Your task to perform on an android device: turn off location Image 0: 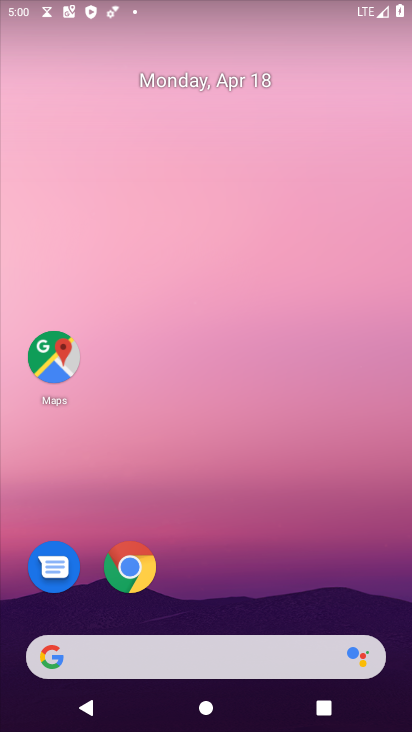
Step 0: drag from (238, 590) to (300, 105)
Your task to perform on an android device: turn off location Image 1: 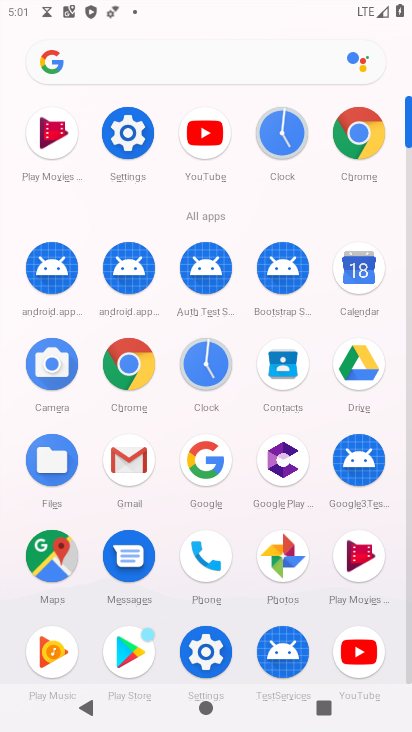
Step 1: click (202, 639)
Your task to perform on an android device: turn off location Image 2: 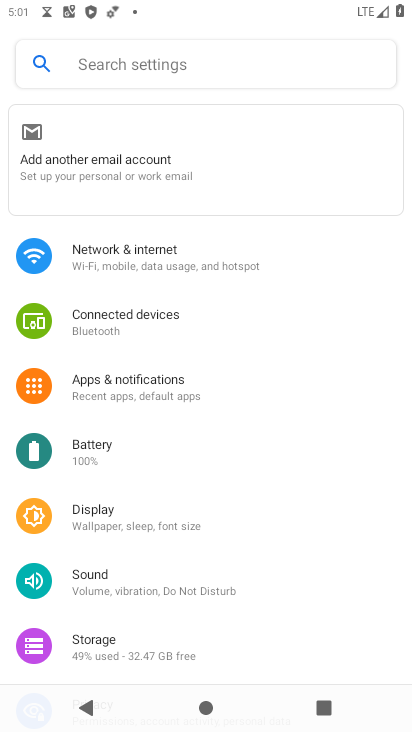
Step 2: drag from (184, 632) to (188, 506)
Your task to perform on an android device: turn off location Image 3: 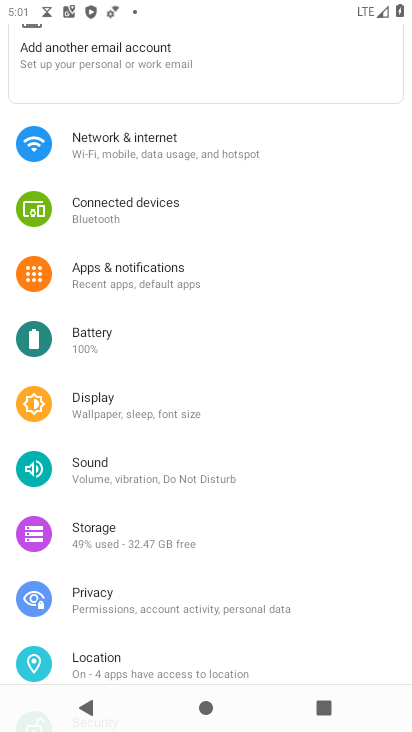
Step 3: click (153, 644)
Your task to perform on an android device: turn off location Image 4: 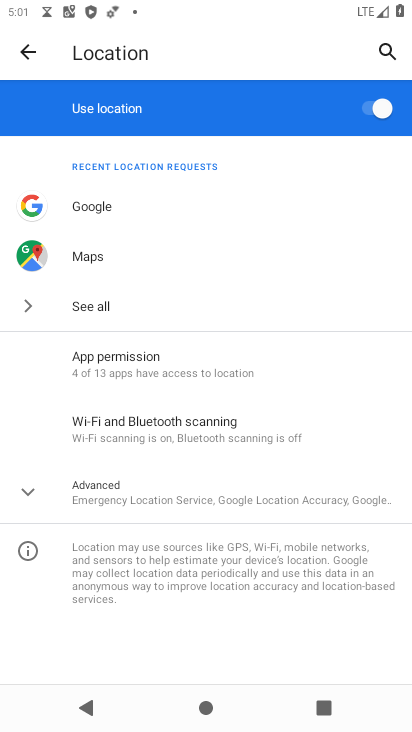
Step 4: click (377, 108)
Your task to perform on an android device: turn off location Image 5: 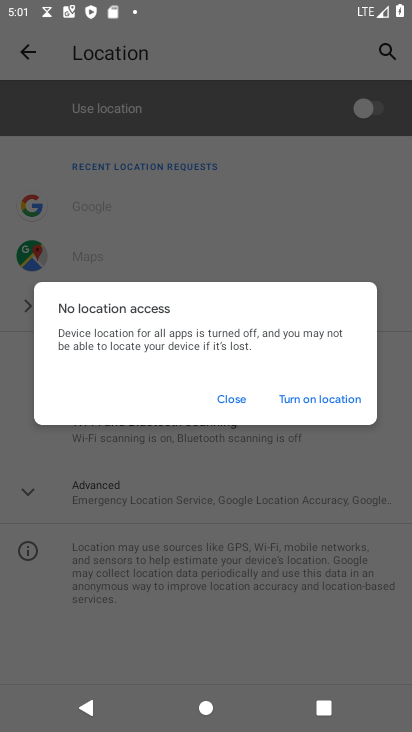
Step 5: task complete